Your task to perform on an android device: How big is a giraffe? Image 0: 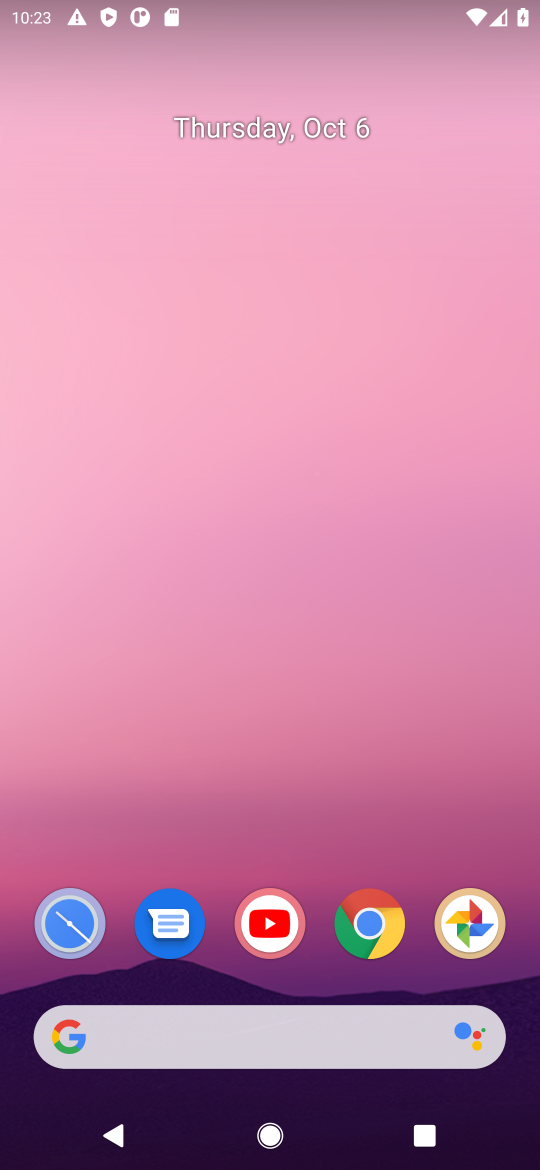
Step 0: click (385, 924)
Your task to perform on an android device: How big is a giraffe? Image 1: 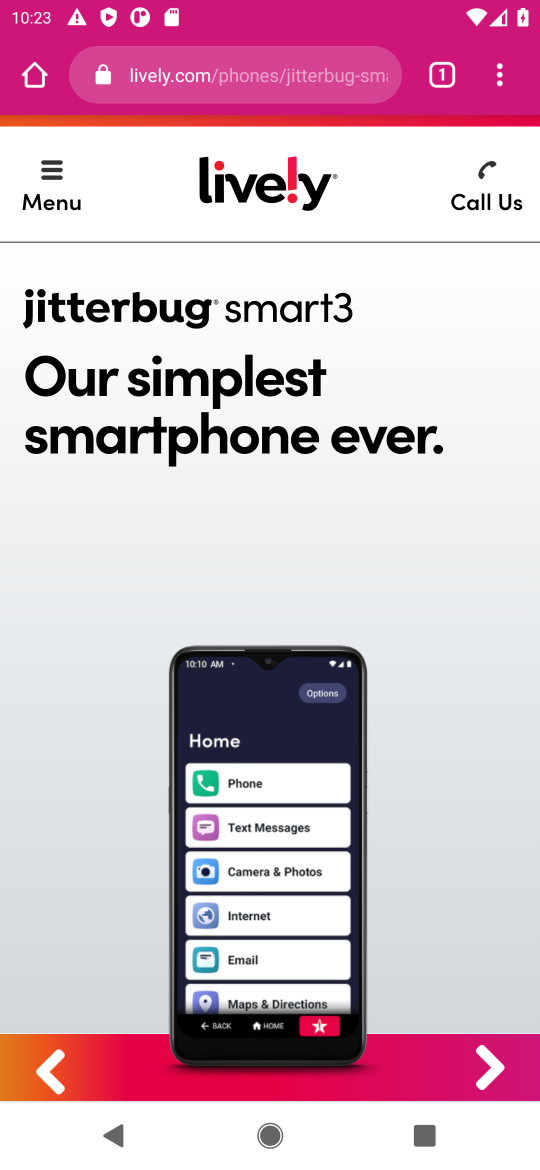
Step 1: click (310, 73)
Your task to perform on an android device: How big is a giraffe? Image 2: 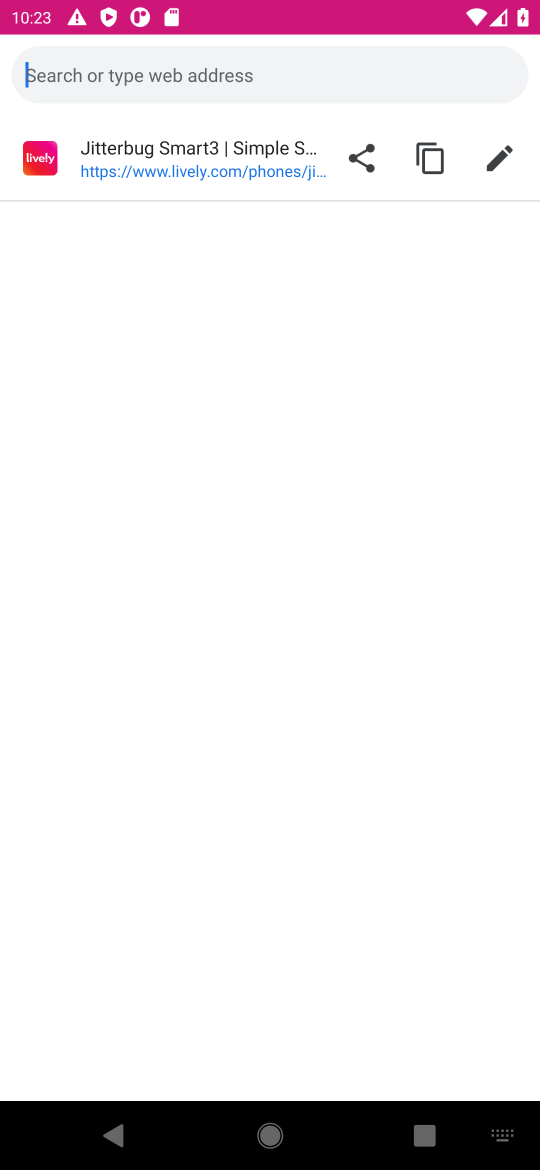
Step 2: type "How big is a giraffe?"
Your task to perform on an android device: How big is a giraffe? Image 3: 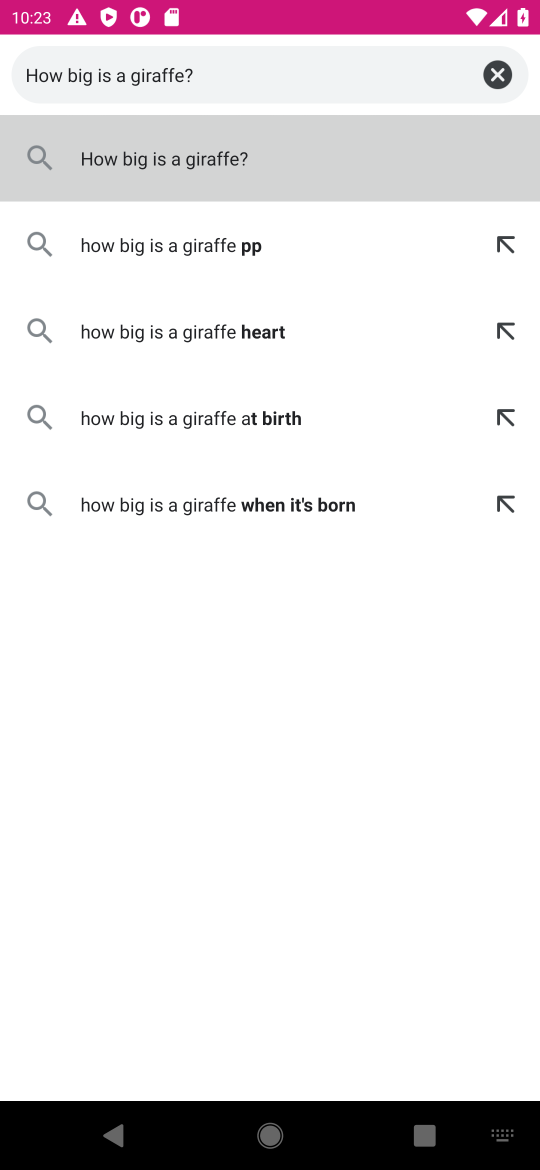
Step 3: click (136, 163)
Your task to perform on an android device: How big is a giraffe? Image 4: 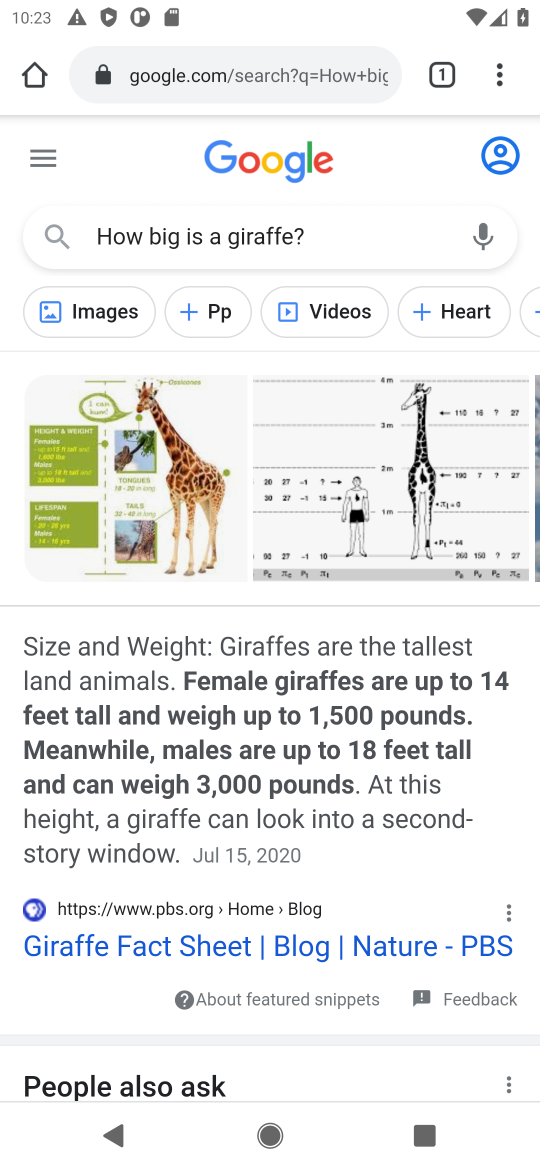
Step 4: task complete